Your task to perform on an android device: turn off improve location accuracy Image 0: 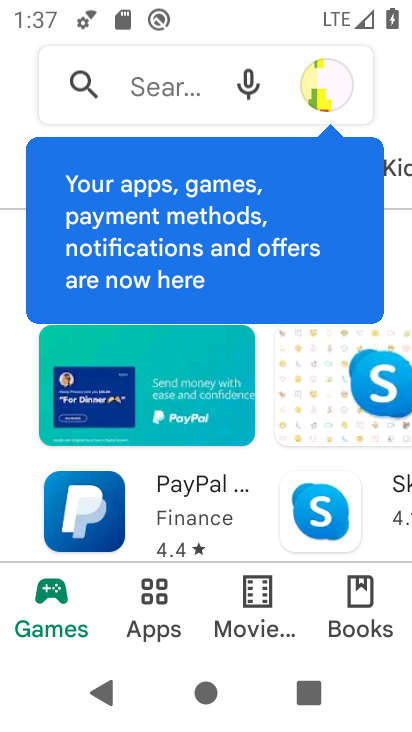
Step 0: press home button
Your task to perform on an android device: turn off improve location accuracy Image 1: 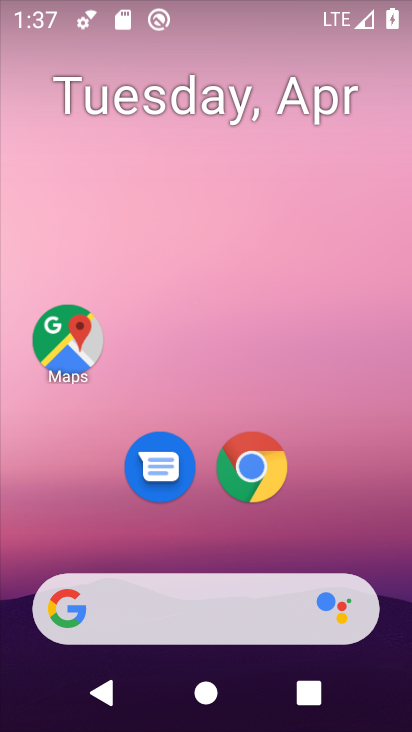
Step 1: drag from (388, 535) to (377, 145)
Your task to perform on an android device: turn off improve location accuracy Image 2: 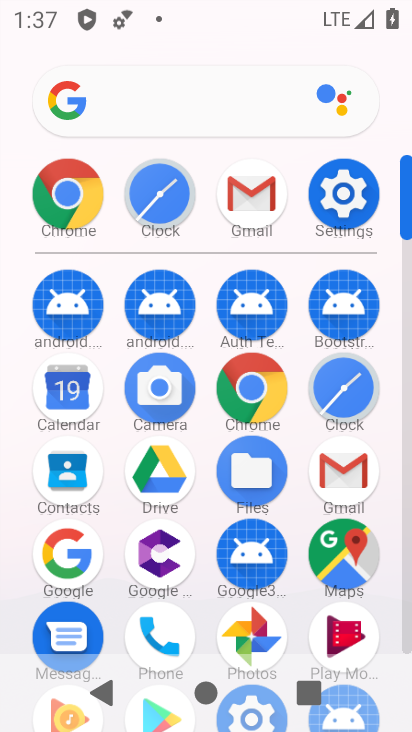
Step 2: click (347, 184)
Your task to perform on an android device: turn off improve location accuracy Image 3: 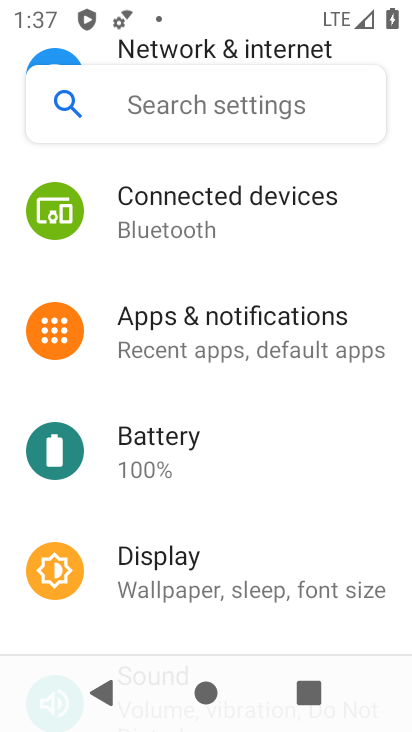
Step 3: drag from (389, 223) to (363, 535)
Your task to perform on an android device: turn off improve location accuracy Image 4: 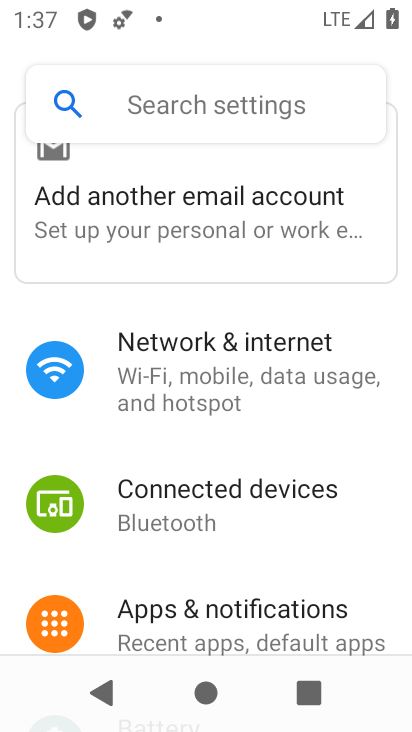
Step 4: drag from (365, 561) to (371, 321)
Your task to perform on an android device: turn off improve location accuracy Image 5: 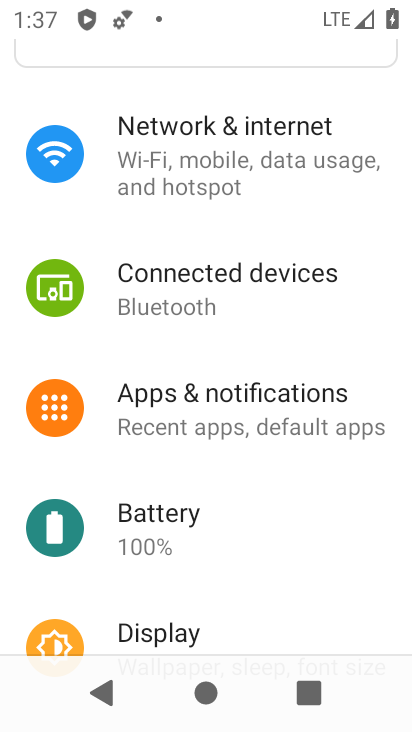
Step 5: drag from (348, 572) to (373, 334)
Your task to perform on an android device: turn off improve location accuracy Image 6: 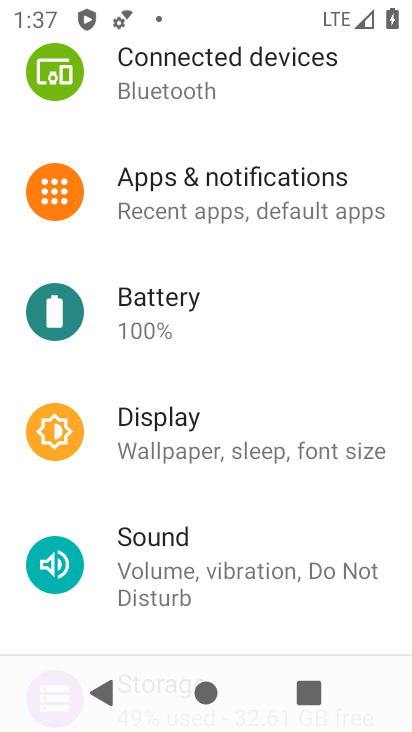
Step 6: drag from (358, 601) to (378, 309)
Your task to perform on an android device: turn off improve location accuracy Image 7: 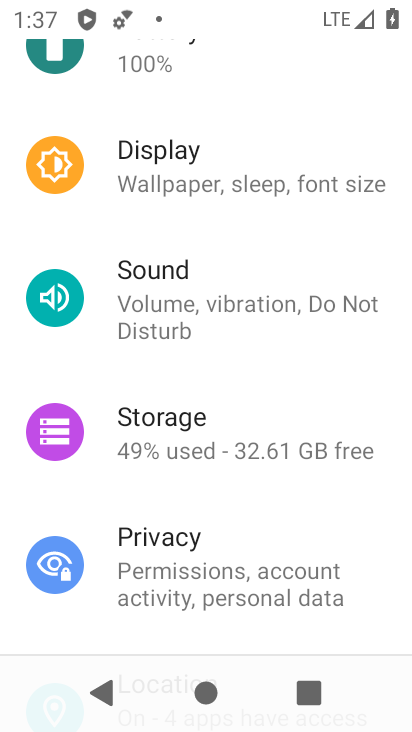
Step 7: drag from (376, 566) to (389, 276)
Your task to perform on an android device: turn off improve location accuracy Image 8: 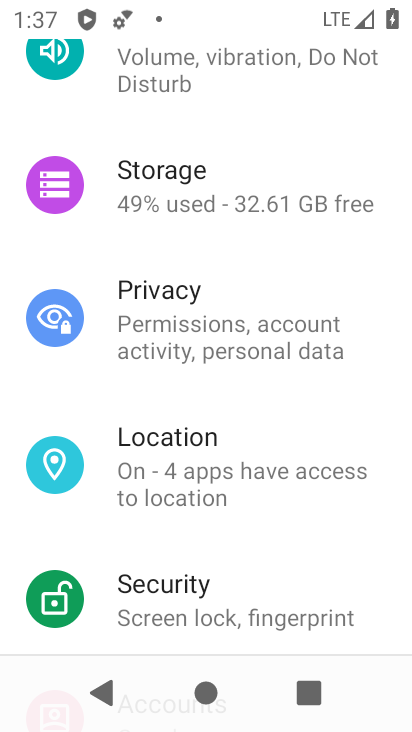
Step 8: drag from (369, 548) to (376, 287)
Your task to perform on an android device: turn off improve location accuracy Image 9: 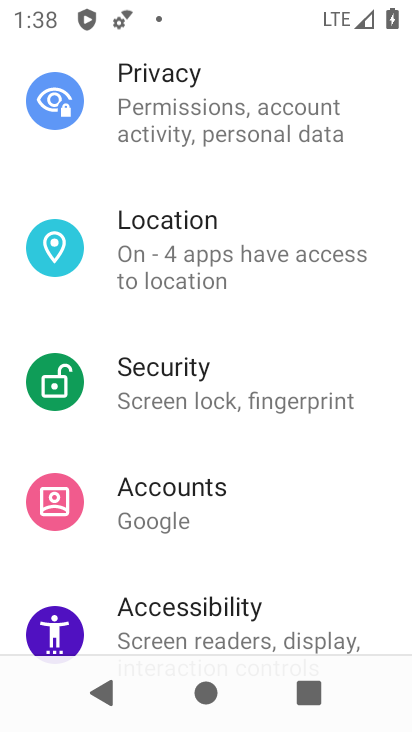
Step 9: click (168, 220)
Your task to perform on an android device: turn off improve location accuracy Image 10: 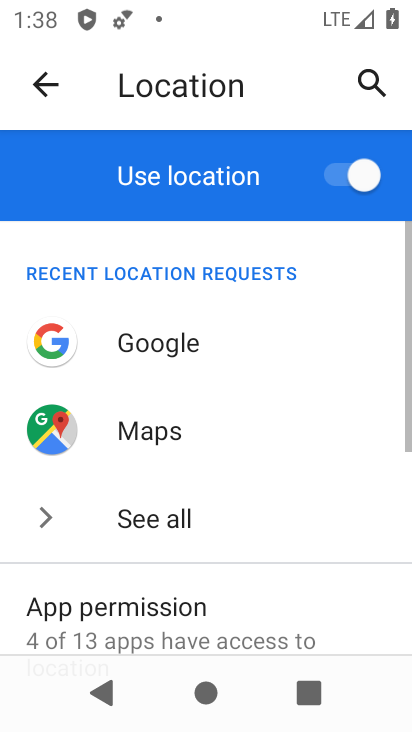
Step 10: drag from (306, 570) to (306, 310)
Your task to perform on an android device: turn off improve location accuracy Image 11: 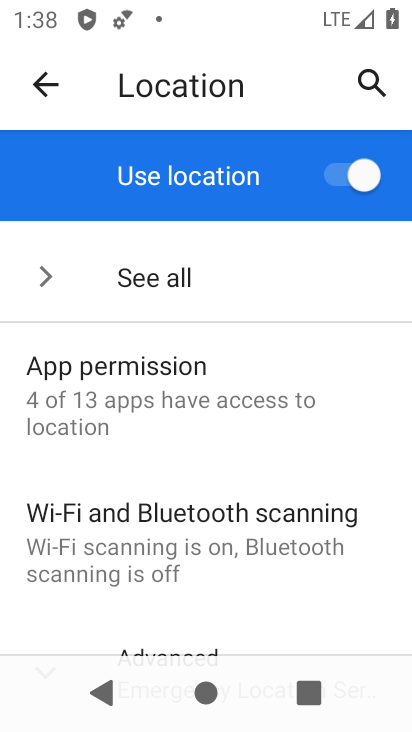
Step 11: drag from (372, 576) to (349, 361)
Your task to perform on an android device: turn off improve location accuracy Image 12: 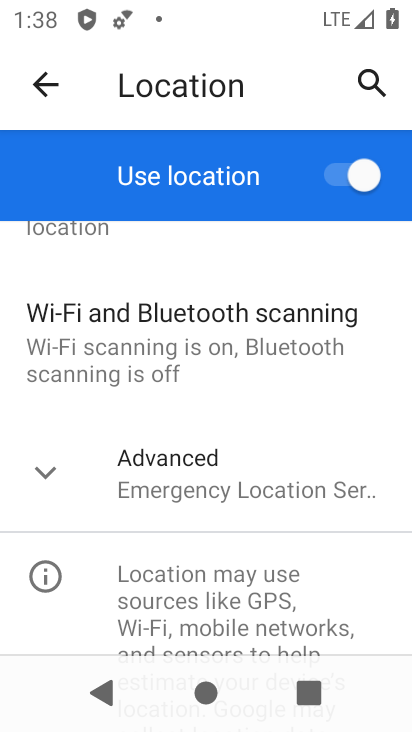
Step 12: click (263, 483)
Your task to perform on an android device: turn off improve location accuracy Image 13: 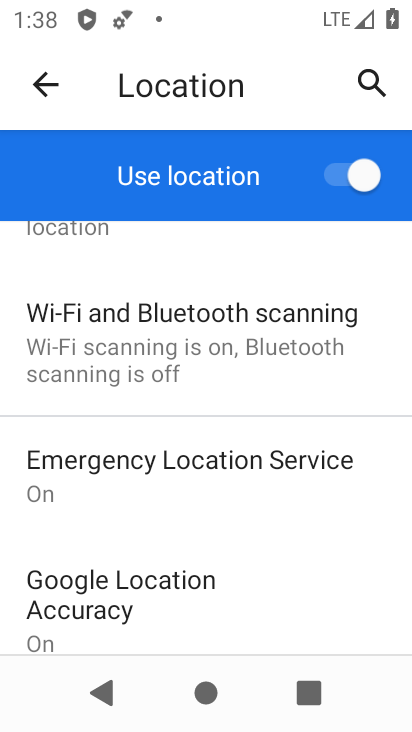
Step 13: drag from (313, 591) to (339, 374)
Your task to perform on an android device: turn off improve location accuracy Image 14: 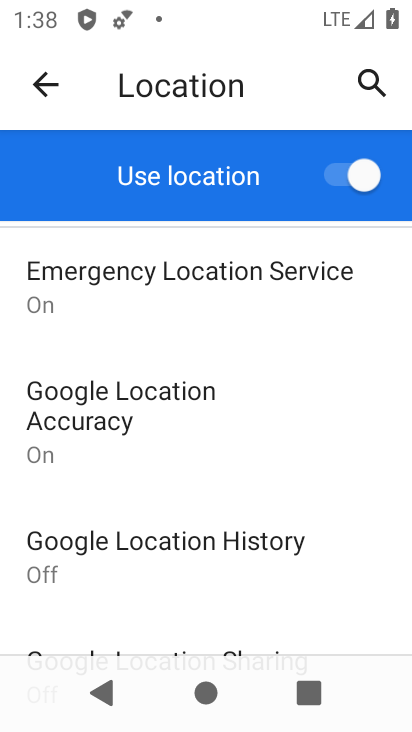
Step 14: click (93, 419)
Your task to perform on an android device: turn off improve location accuracy Image 15: 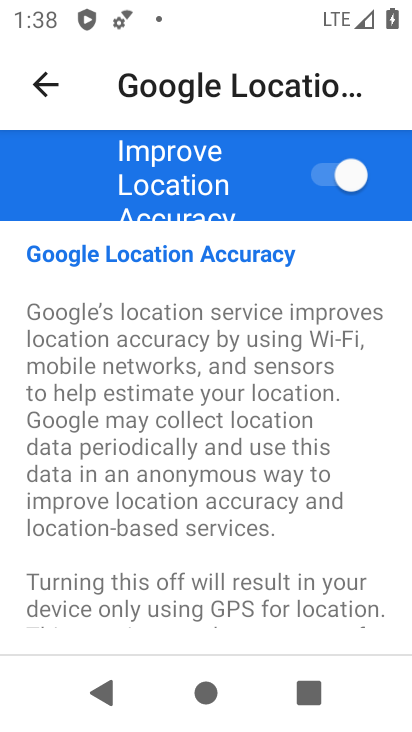
Step 15: click (341, 167)
Your task to perform on an android device: turn off improve location accuracy Image 16: 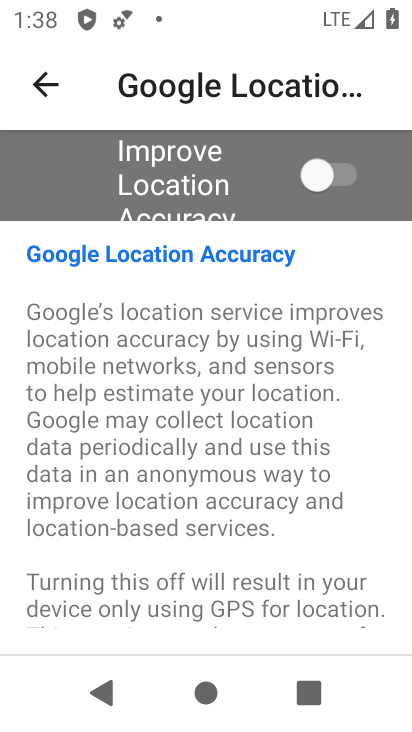
Step 16: task complete